Your task to perform on an android device: turn off javascript in the chrome app Image 0: 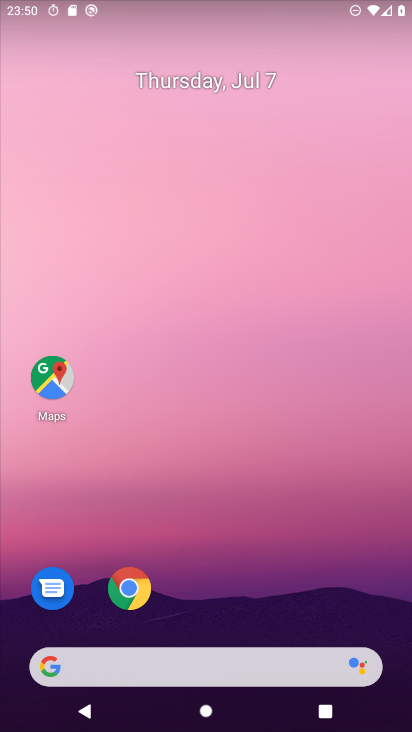
Step 0: drag from (254, 614) to (244, 157)
Your task to perform on an android device: turn off javascript in the chrome app Image 1: 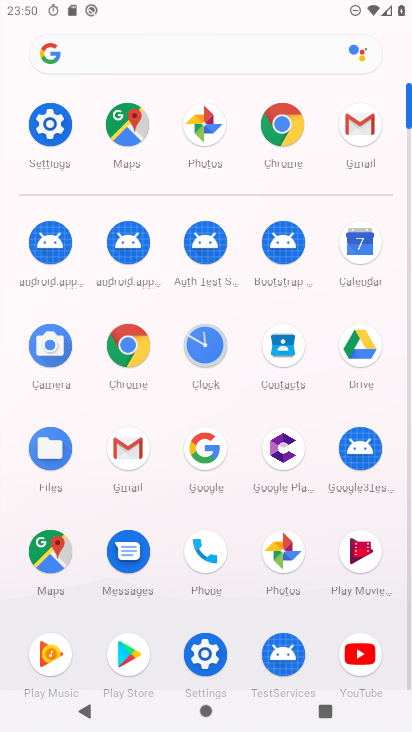
Step 1: click (284, 123)
Your task to perform on an android device: turn off javascript in the chrome app Image 2: 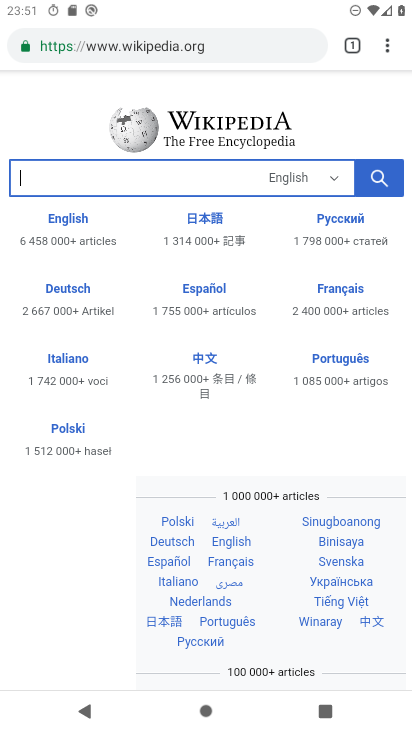
Step 2: drag from (387, 40) to (224, 547)
Your task to perform on an android device: turn off javascript in the chrome app Image 3: 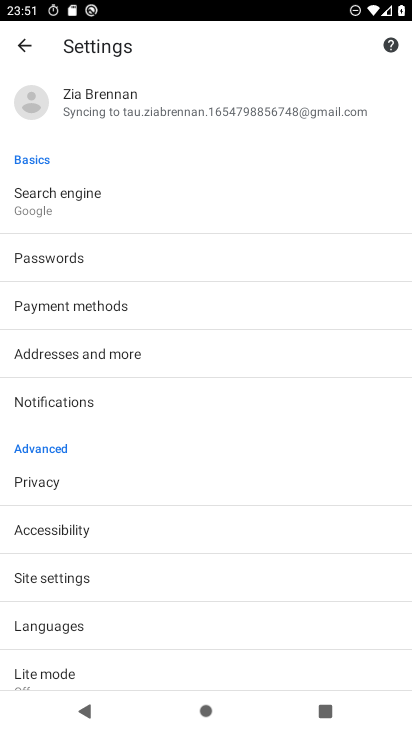
Step 3: click (42, 576)
Your task to perform on an android device: turn off javascript in the chrome app Image 4: 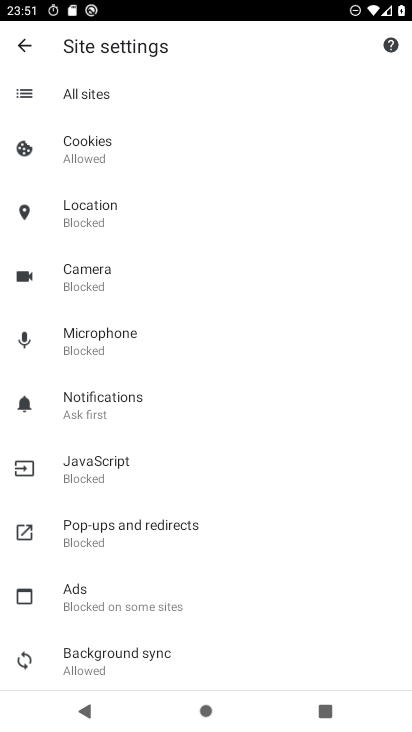
Step 4: click (111, 467)
Your task to perform on an android device: turn off javascript in the chrome app Image 5: 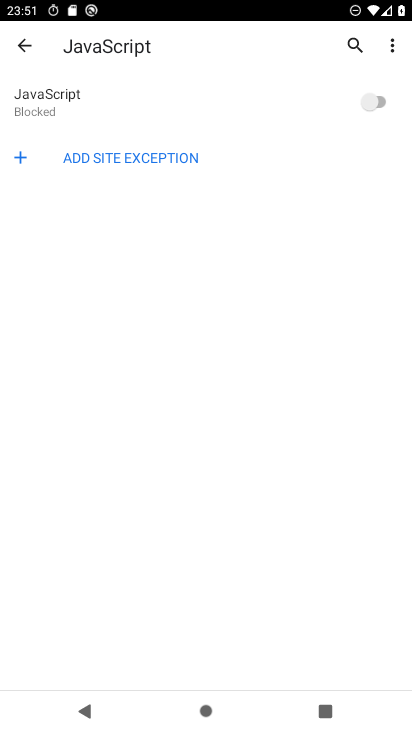
Step 5: task complete